Your task to perform on an android device: turn on wifi Image 0: 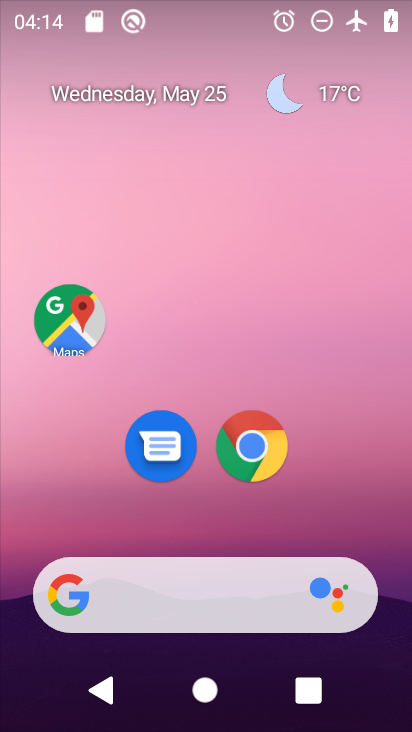
Step 0: drag from (199, 614) to (127, 249)
Your task to perform on an android device: turn on wifi Image 1: 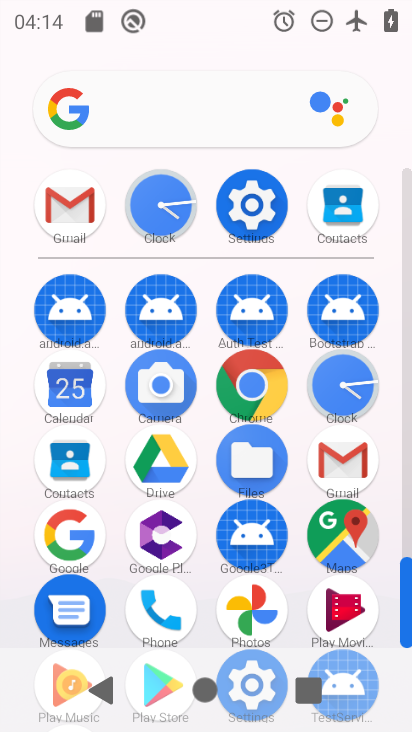
Step 1: click (267, 196)
Your task to perform on an android device: turn on wifi Image 2: 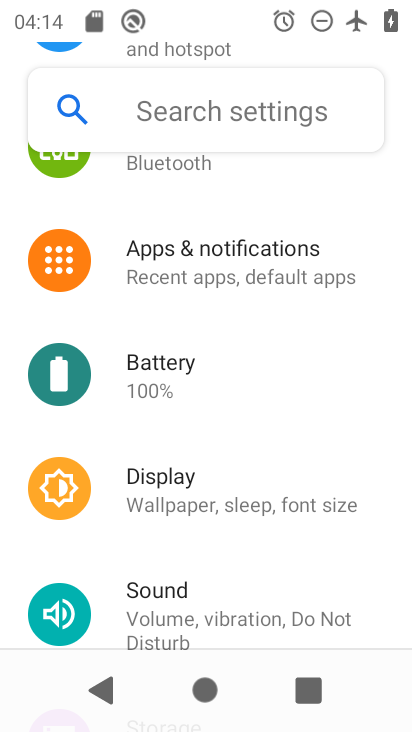
Step 2: drag from (220, 217) to (249, 598)
Your task to perform on an android device: turn on wifi Image 3: 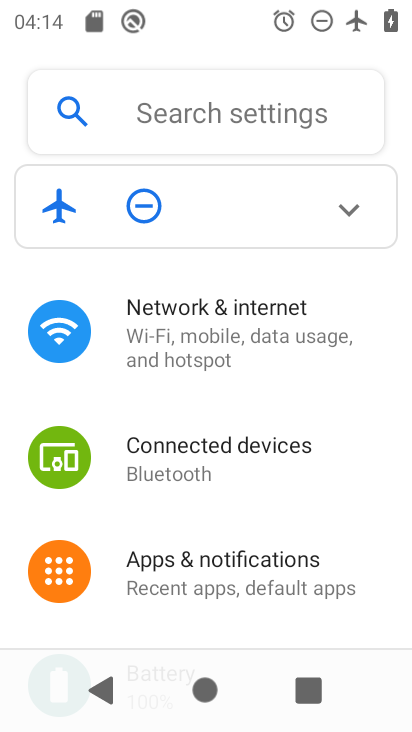
Step 3: click (238, 346)
Your task to perform on an android device: turn on wifi Image 4: 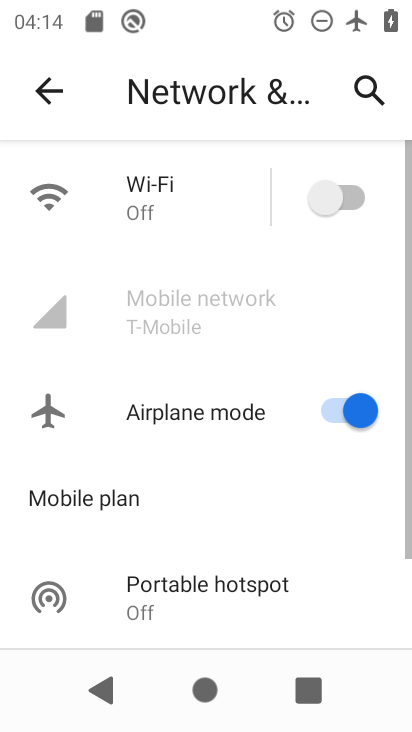
Step 4: click (326, 199)
Your task to perform on an android device: turn on wifi Image 5: 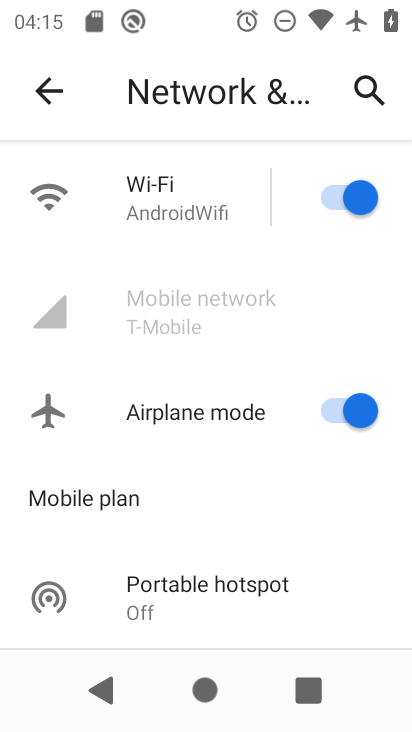
Step 5: task complete